Your task to perform on an android device: open a new tab in the chrome app Image 0: 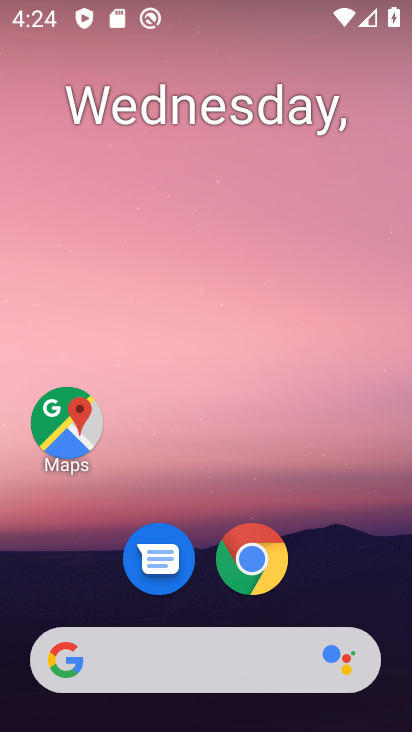
Step 0: drag from (394, 614) to (287, 122)
Your task to perform on an android device: open a new tab in the chrome app Image 1: 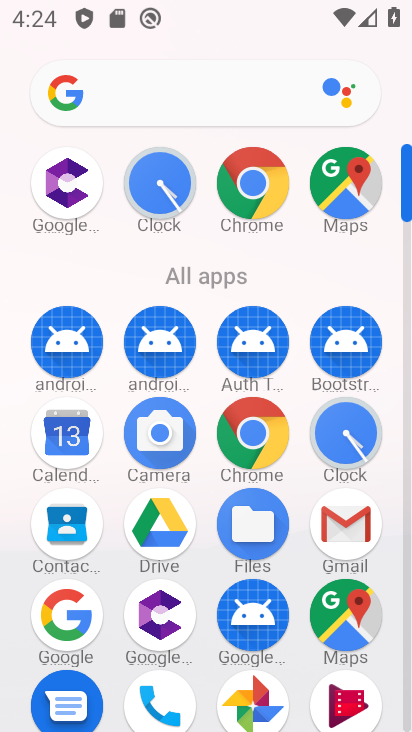
Step 1: click (265, 194)
Your task to perform on an android device: open a new tab in the chrome app Image 2: 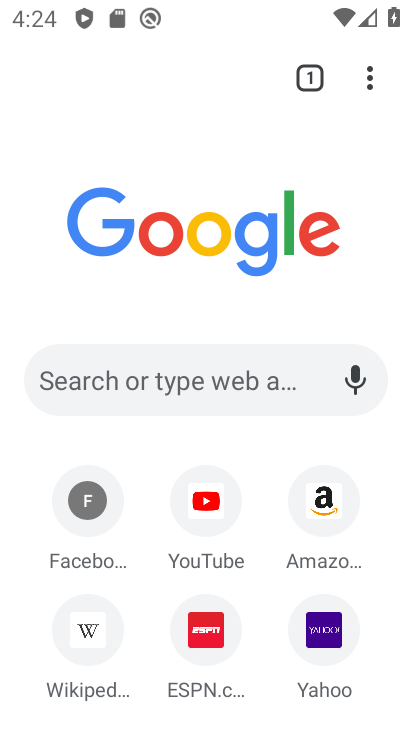
Step 2: click (373, 77)
Your task to perform on an android device: open a new tab in the chrome app Image 3: 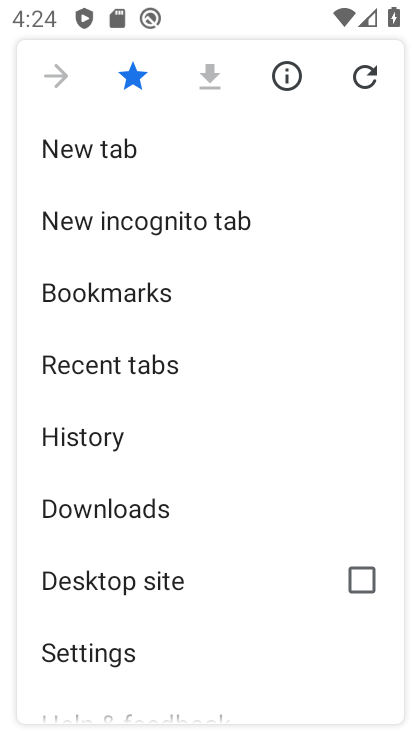
Step 3: click (260, 138)
Your task to perform on an android device: open a new tab in the chrome app Image 4: 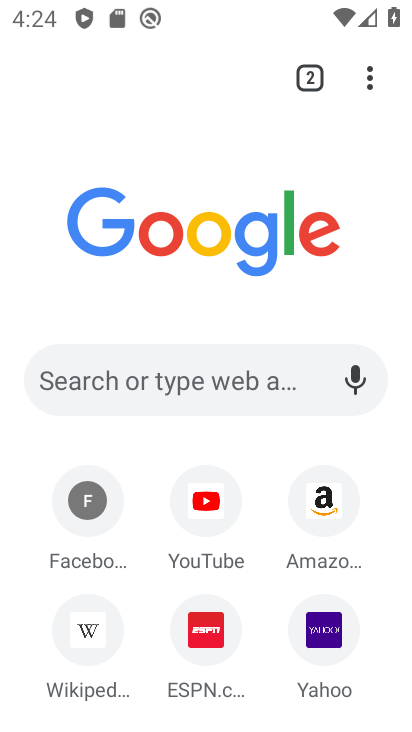
Step 4: task complete